Your task to perform on an android device: Show me productivity apps on the Play Store Image 0: 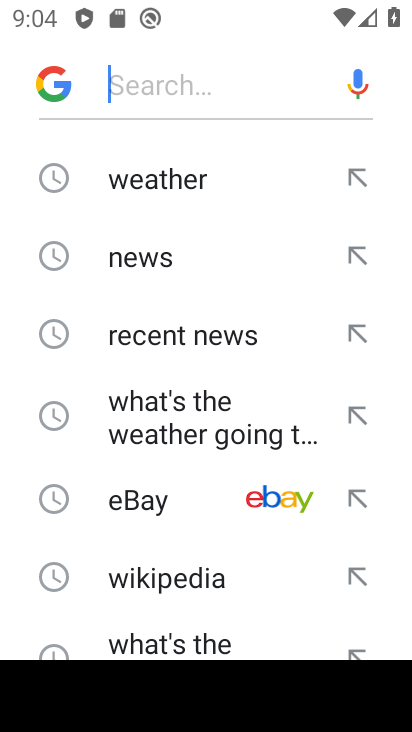
Step 0: press home button
Your task to perform on an android device: Show me productivity apps on the Play Store Image 1: 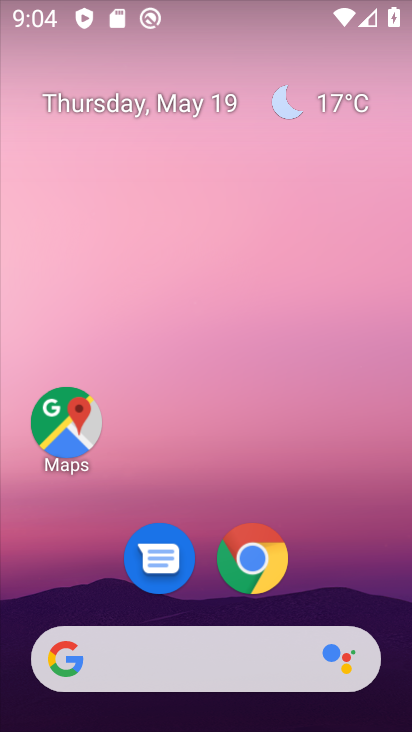
Step 1: drag from (216, 696) to (218, 315)
Your task to perform on an android device: Show me productivity apps on the Play Store Image 2: 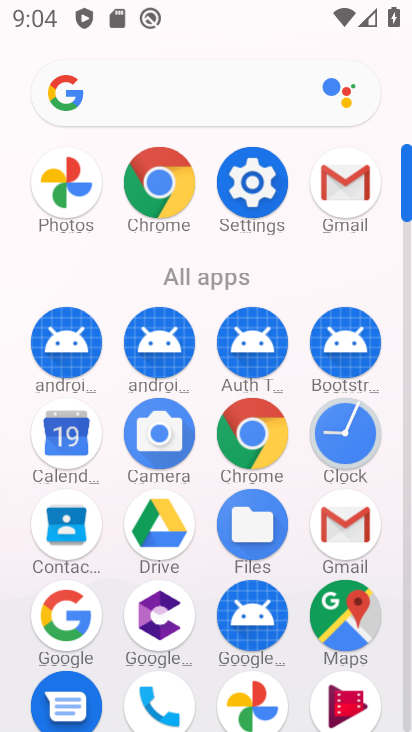
Step 2: drag from (203, 665) to (210, 381)
Your task to perform on an android device: Show me productivity apps on the Play Store Image 3: 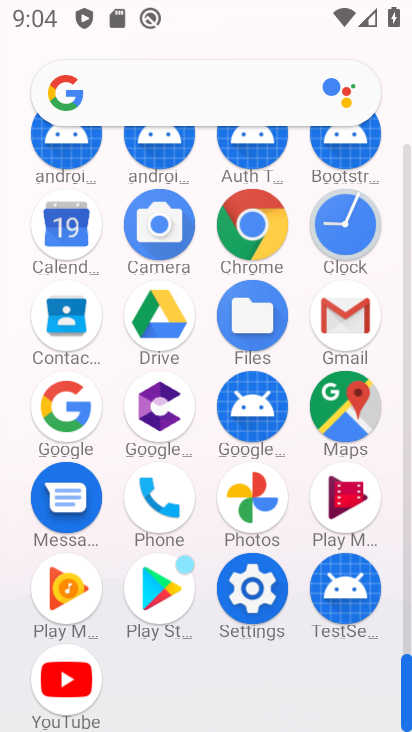
Step 3: click (167, 587)
Your task to perform on an android device: Show me productivity apps on the Play Store Image 4: 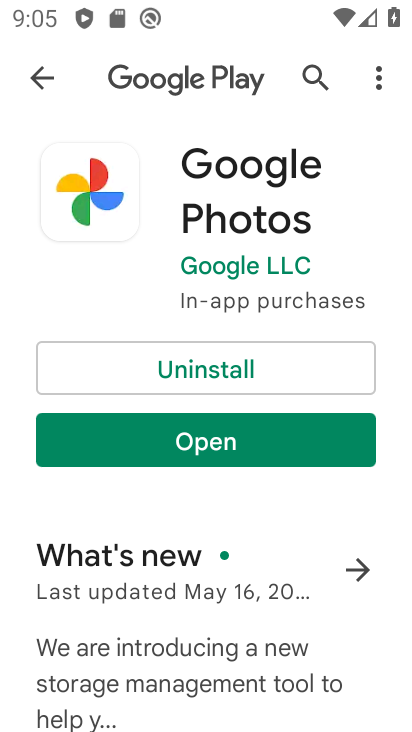
Step 4: click (39, 72)
Your task to perform on an android device: Show me productivity apps on the Play Store Image 5: 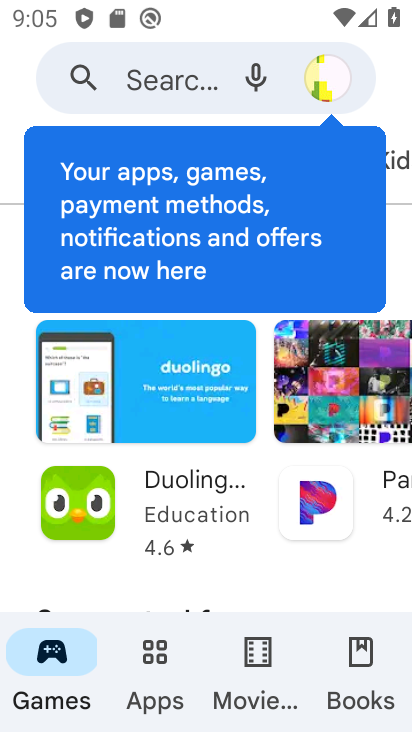
Step 5: click (149, 668)
Your task to perform on an android device: Show me productivity apps on the Play Store Image 6: 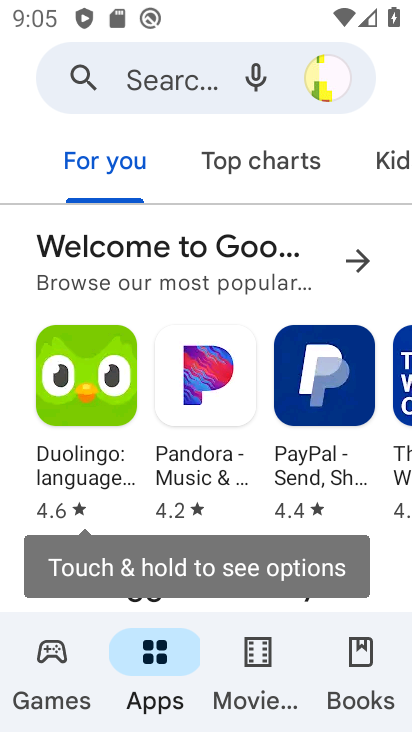
Step 6: drag from (291, 160) to (2, 149)
Your task to perform on an android device: Show me productivity apps on the Play Store Image 7: 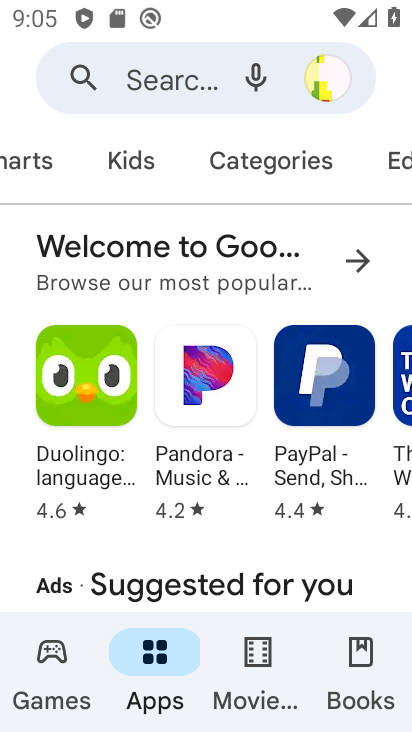
Step 7: click (295, 159)
Your task to perform on an android device: Show me productivity apps on the Play Store Image 8: 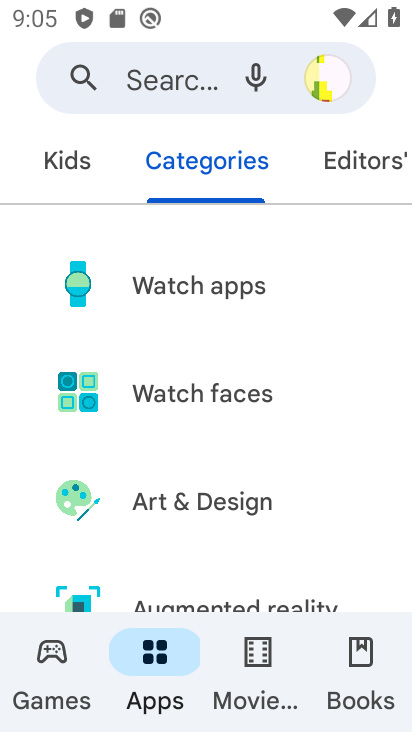
Step 8: drag from (233, 534) to (200, 277)
Your task to perform on an android device: Show me productivity apps on the Play Store Image 9: 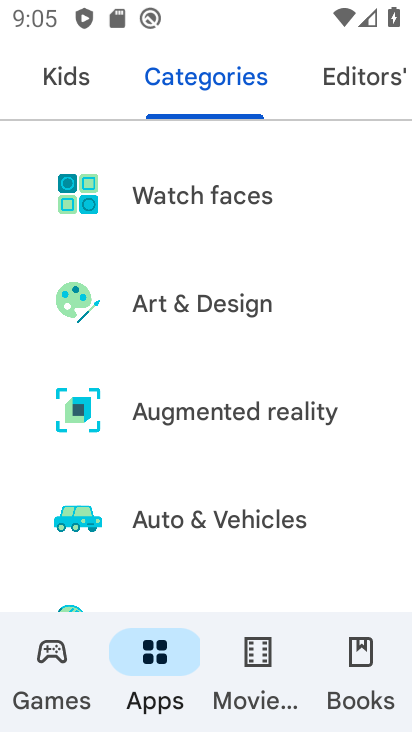
Step 9: drag from (221, 583) to (197, 282)
Your task to perform on an android device: Show me productivity apps on the Play Store Image 10: 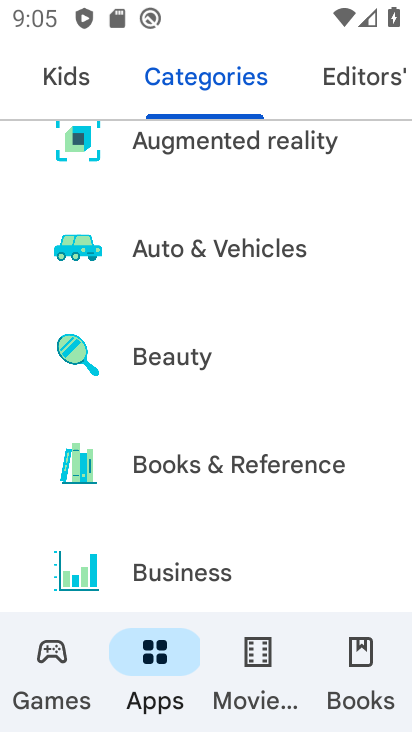
Step 10: drag from (245, 539) to (237, 314)
Your task to perform on an android device: Show me productivity apps on the Play Store Image 11: 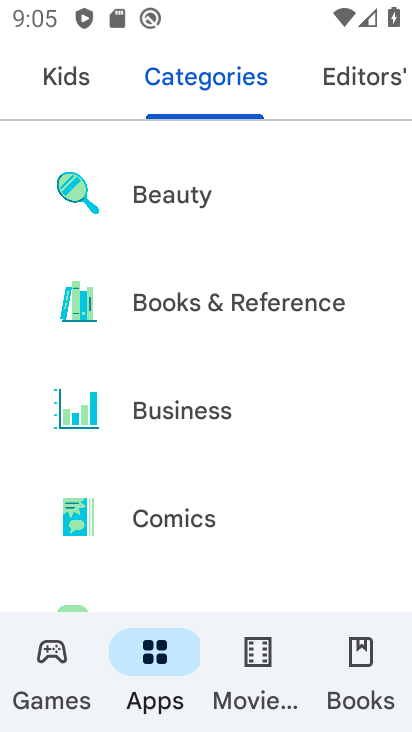
Step 11: drag from (255, 562) to (254, 313)
Your task to perform on an android device: Show me productivity apps on the Play Store Image 12: 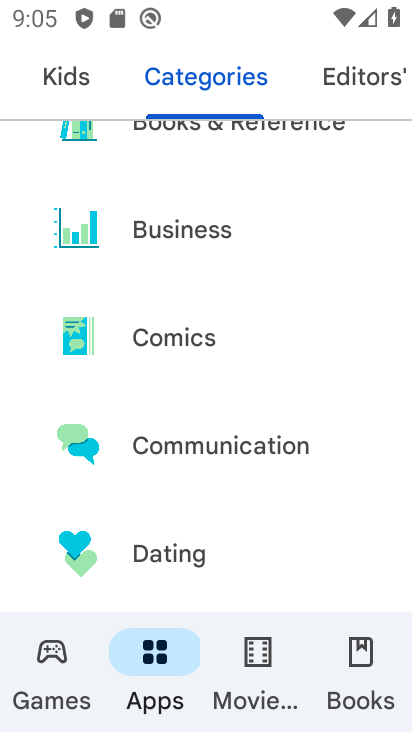
Step 12: drag from (259, 573) to (250, 309)
Your task to perform on an android device: Show me productivity apps on the Play Store Image 13: 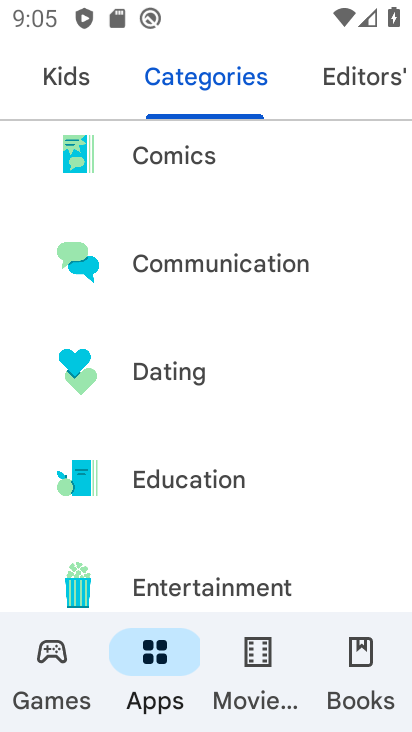
Step 13: drag from (256, 571) to (223, 190)
Your task to perform on an android device: Show me productivity apps on the Play Store Image 14: 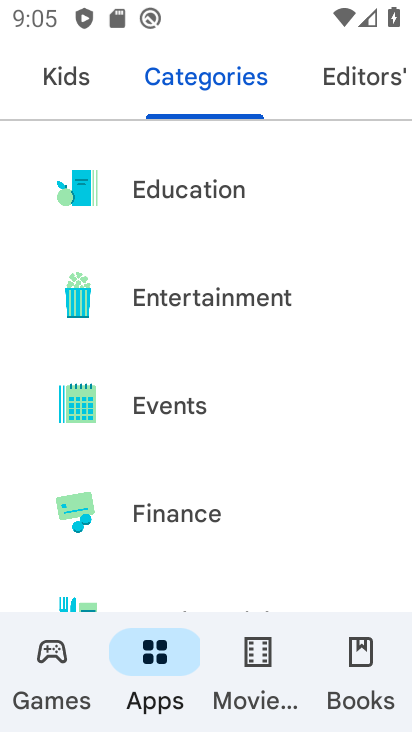
Step 14: drag from (264, 543) to (254, 178)
Your task to perform on an android device: Show me productivity apps on the Play Store Image 15: 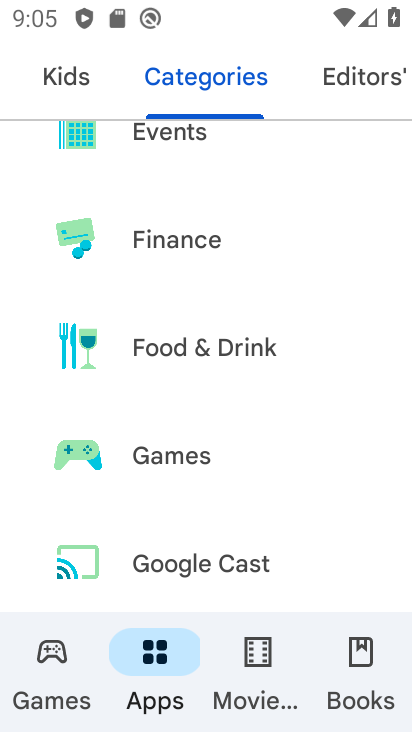
Step 15: drag from (259, 582) to (232, 230)
Your task to perform on an android device: Show me productivity apps on the Play Store Image 16: 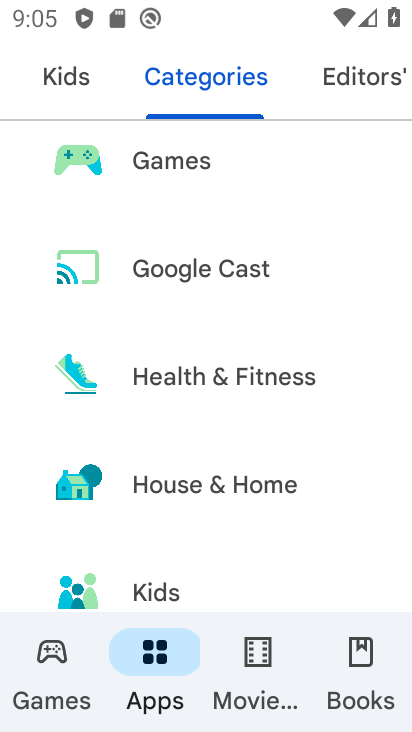
Step 16: drag from (244, 557) to (237, 136)
Your task to perform on an android device: Show me productivity apps on the Play Store Image 17: 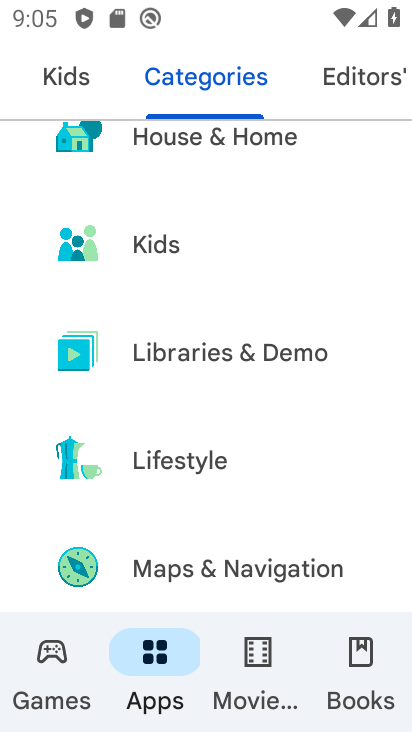
Step 17: drag from (240, 536) to (242, 275)
Your task to perform on an android device: Show me productivity apps on the Play Store Image 18: 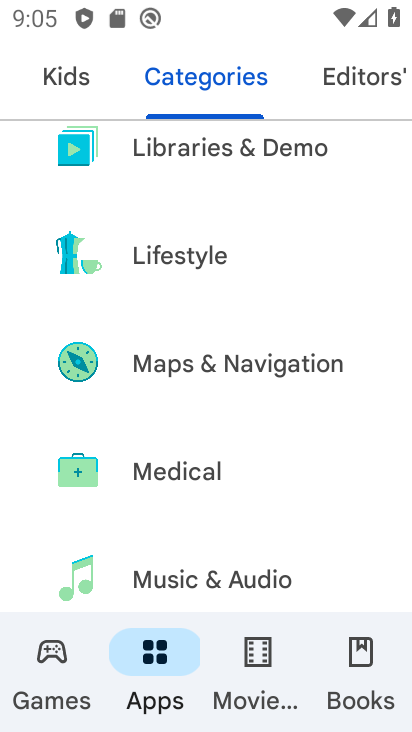
Step 18: drag from (239, 568) to (240, 303)
Your task to perform on an android device: Show me productivity apps on the Play Store Image 19: 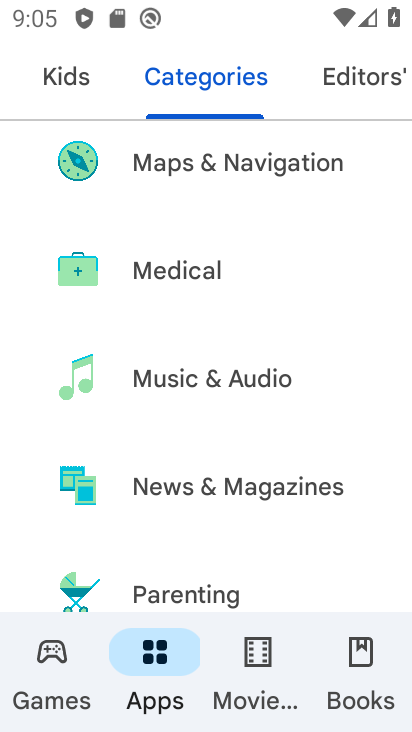
Step 19: drag from (220, 573) to (222, 300)
Your task to perform on an android device: Show me productivity apps on the Play Store Image 20: 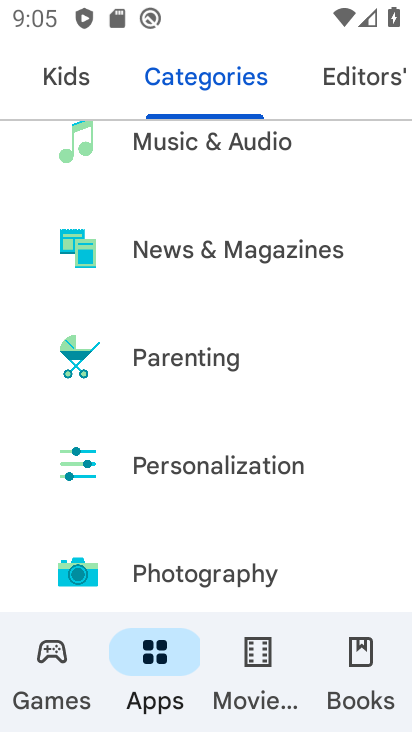
Step 20: drag from (220, 574) to (222, 313)
Your task to perform on an android device: Show me productivity apps on the Play Store Image 21: 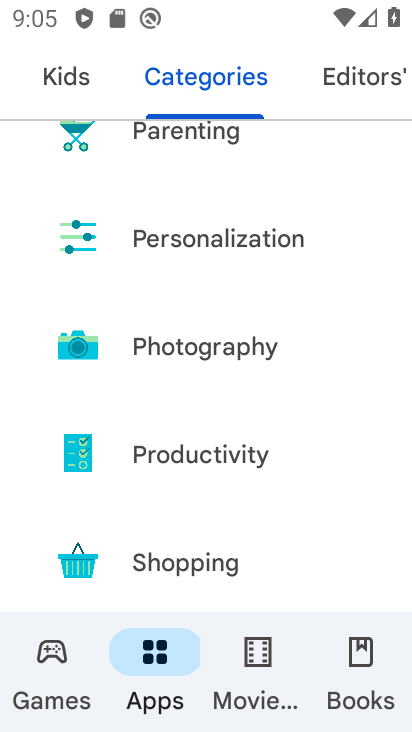
Step 21: click (209, 457)
Your task to perform on an android device: Show me productivity apps on the Play Store Image 22: 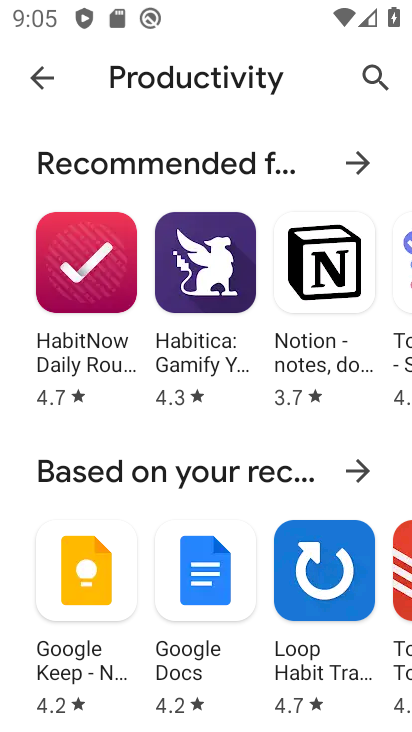
Step 22: task complete